Your task to perform on an android device: Open CNN.com Image 0: 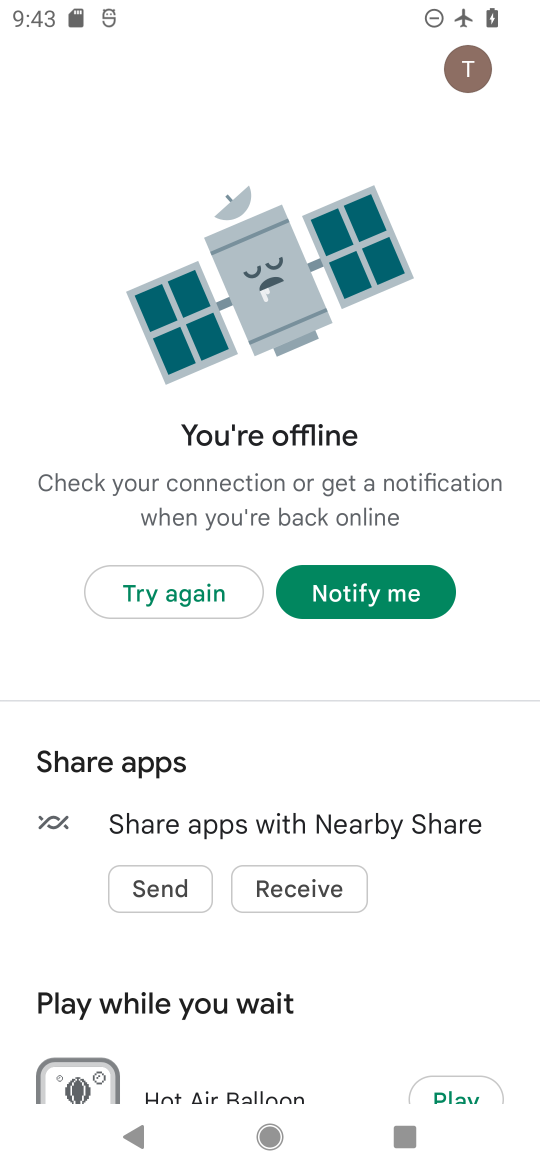
Step 0: press home button
Your task to perform on an android device: Open CNN.com Image 1: 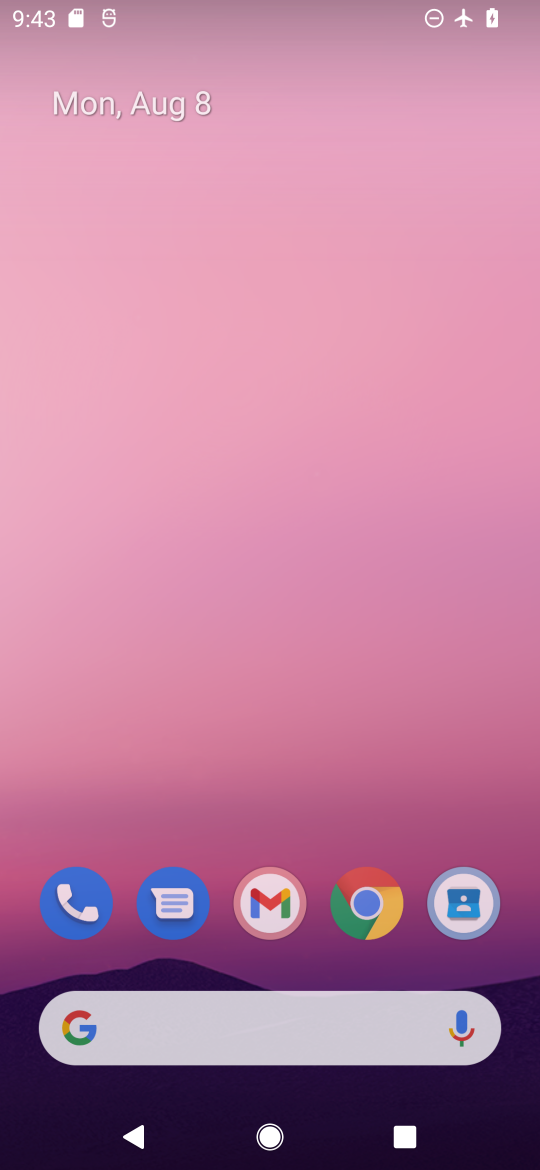
Step 1: drag from (361, 815) to (159, 46)
Your task to perform on an android device: Open CNN.com Image 2: 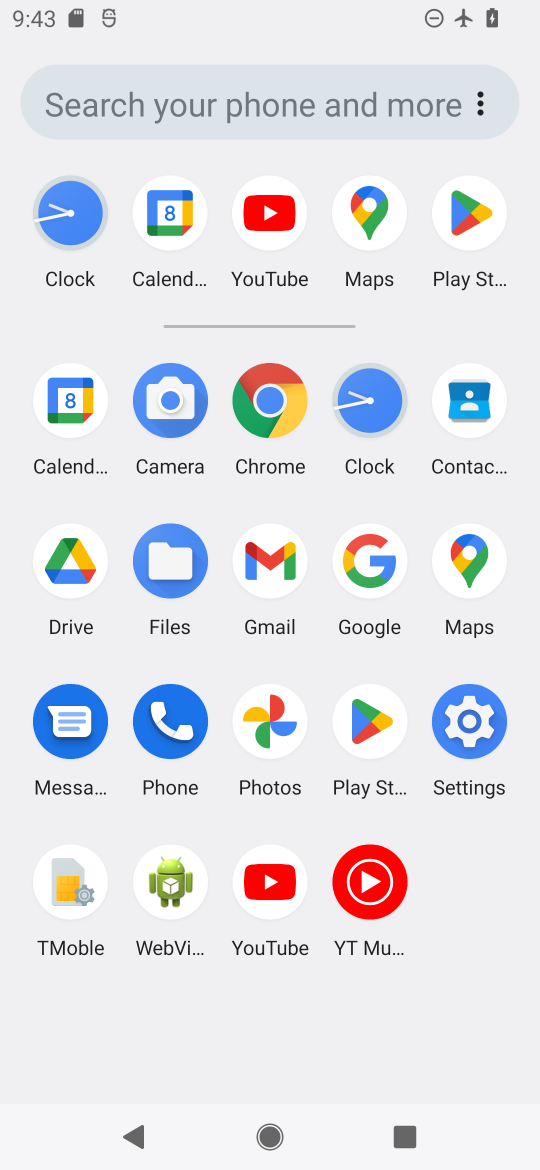
Step 2: click (405, 566)
Your task to perform on an android device: Open CNN.com Image 3: 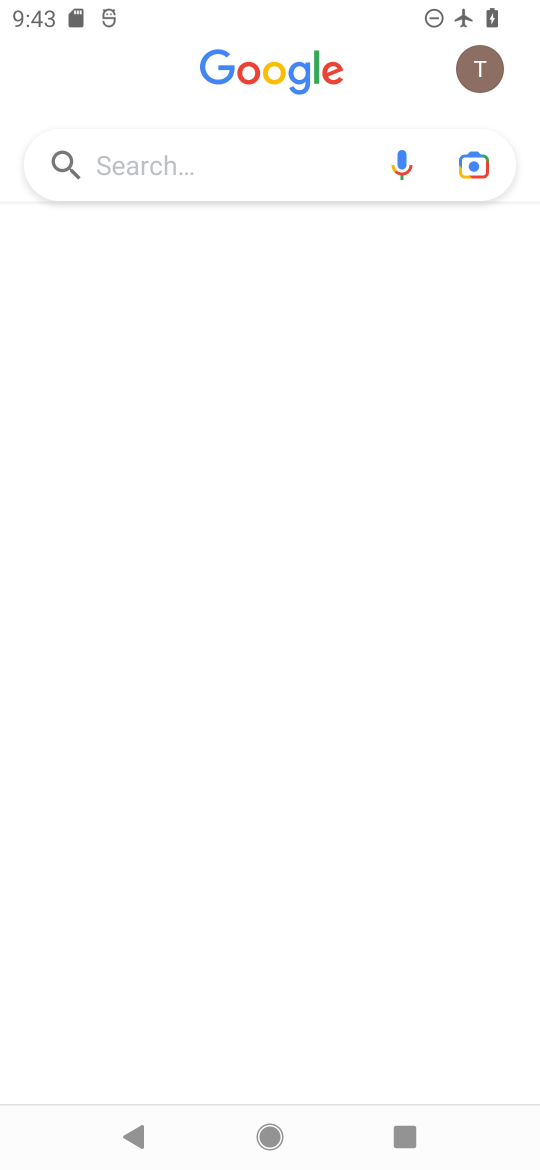
Step 3: click (192, 139)
Your task to perform on an android device: Open CNN.com Image 4: 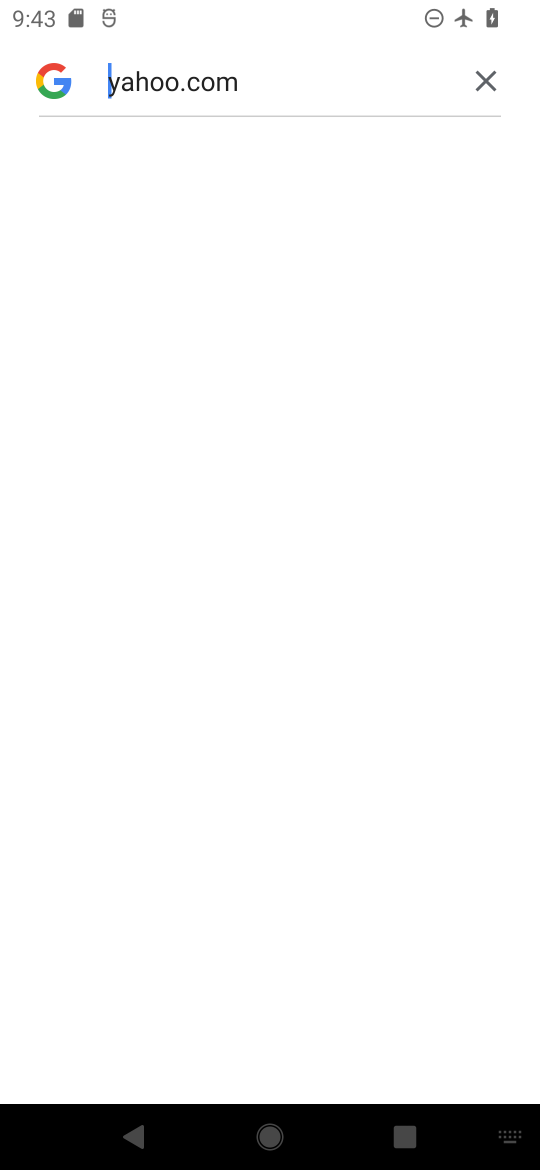
Step 4: click (494, 89)
Your task to perform on an android device: Open CNN.com Image 5: 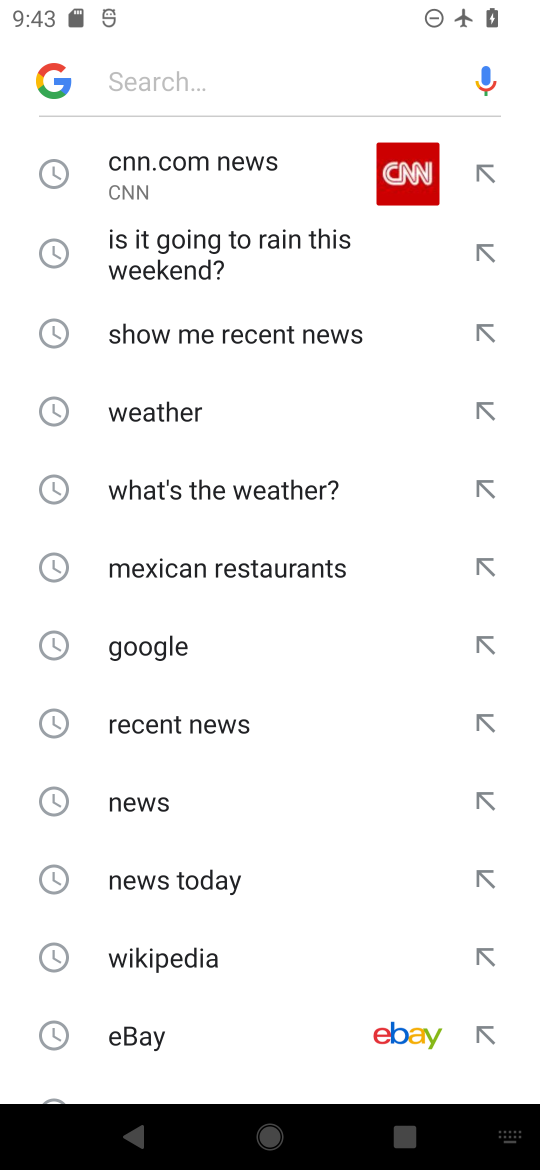
Step 5: type "CNN.com"
Your task to perform on an android device: Open CNN.com Image 6: 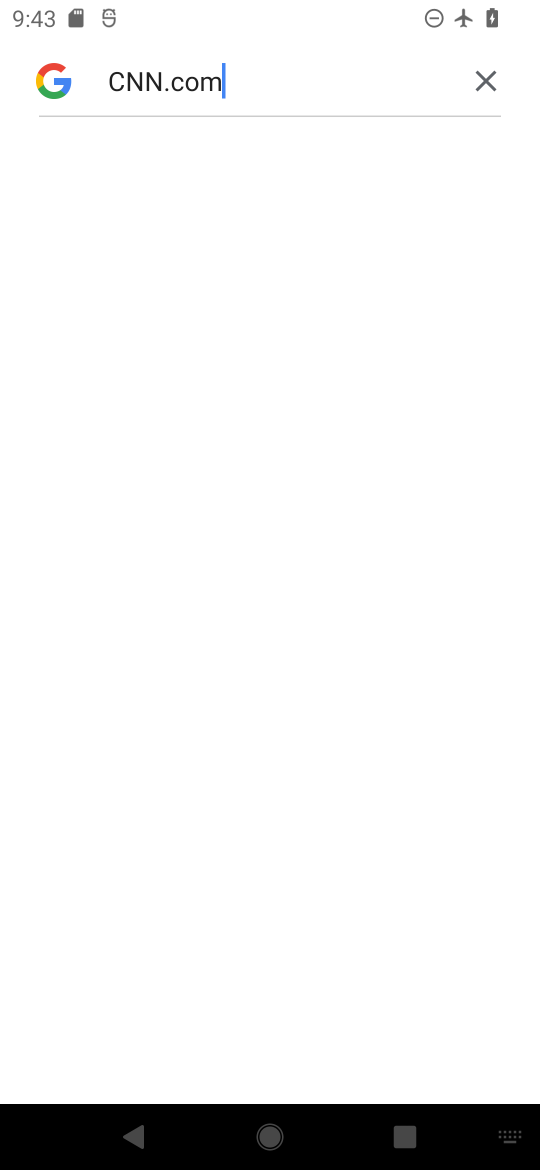
Step 6: task complete